Your task to perform on an android device: open app "ColorNote Notepad Notes" (install if not already installed) Image 0: 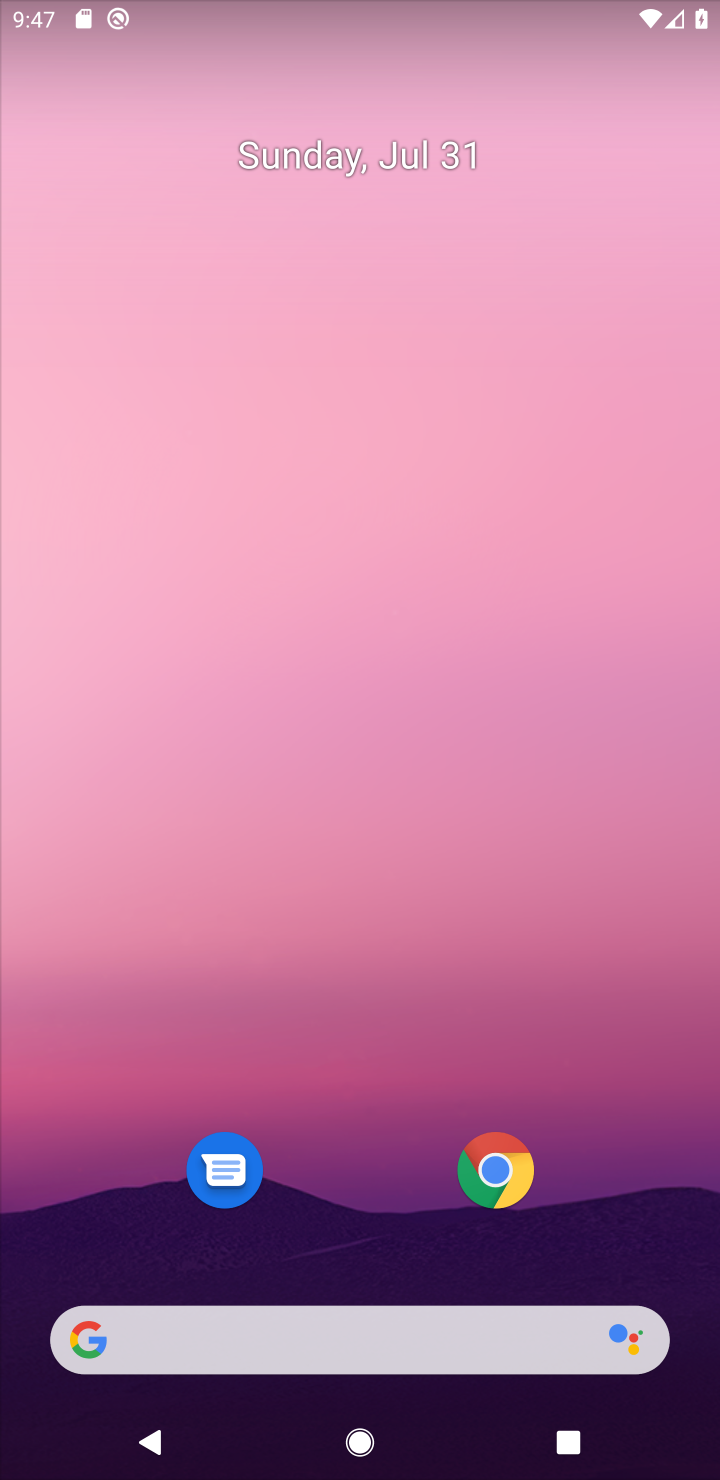
Step 0: drag from (645, 1205) to (382, 84)
Your task to perform on an android device: open app "ColorNote Notepad Notes" (install if not already installed) Image 1: 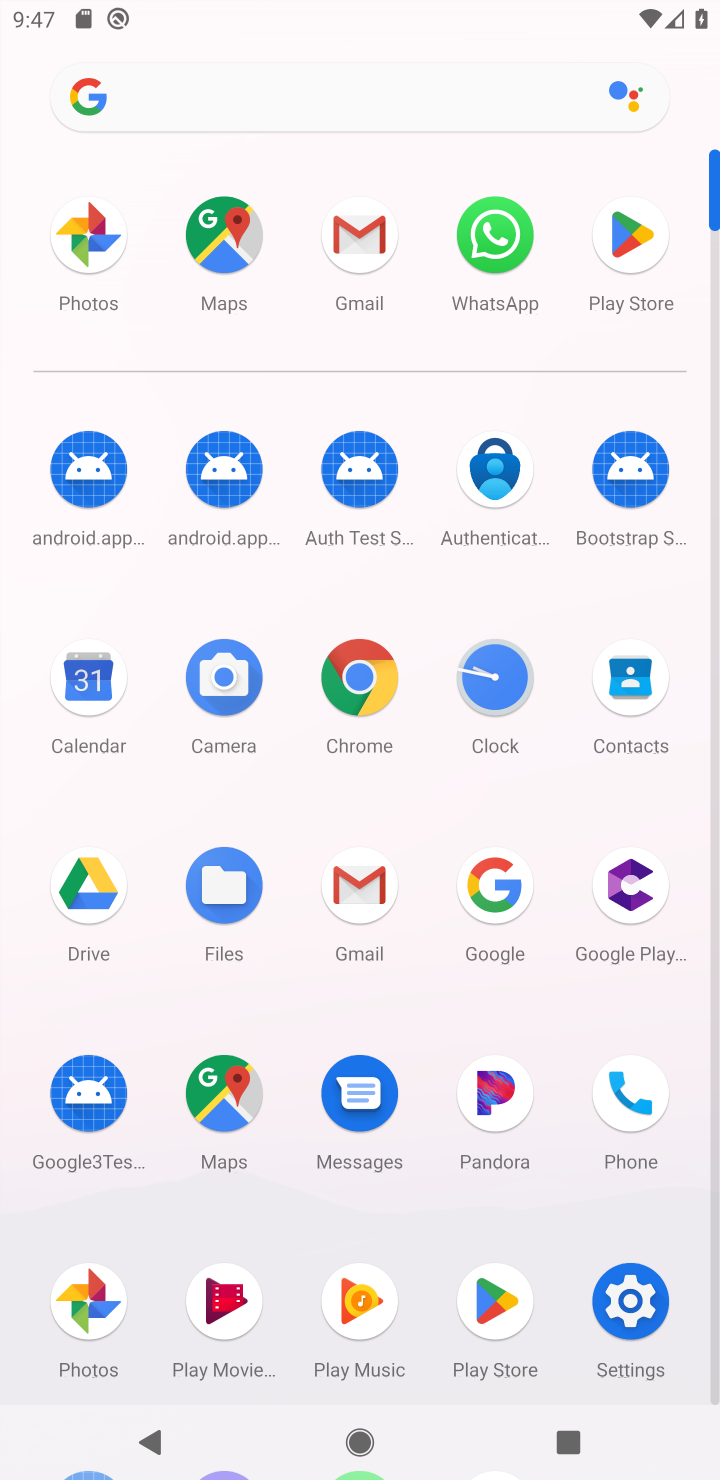
Step 1: click (615, 238)
Your task to perform on an android device: open app "ColorNote Notepad Notes" (install if not already installed) Image 2: 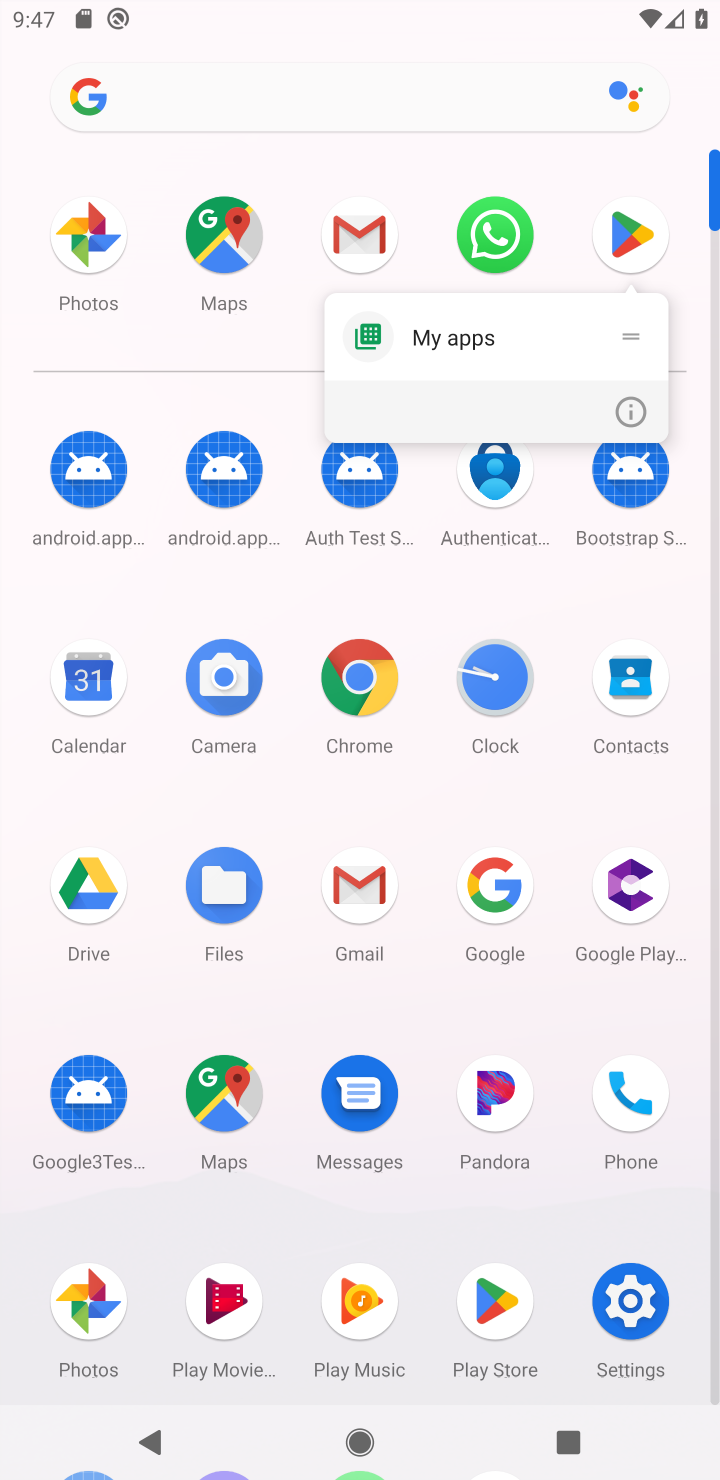
Step 2: click (615, 238)
Your task to perform on an android device: open app "ColorNote Notepad Notes" (install if not already installed) Image 3: 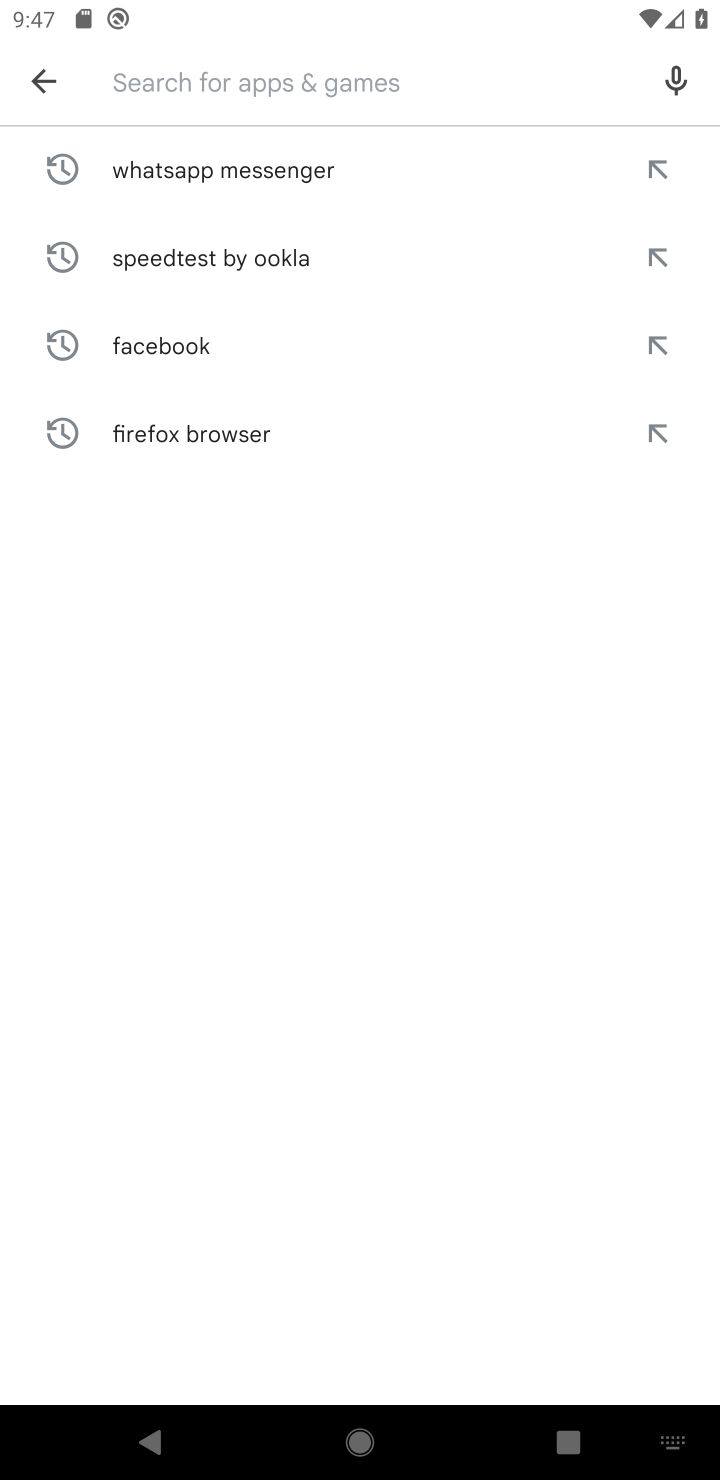
Step 3: type "ColorNote Notepad Notes"
Your task to perform on an android device: open app "ColorNote Notepad Notes" (install if not already installed) Image 4: 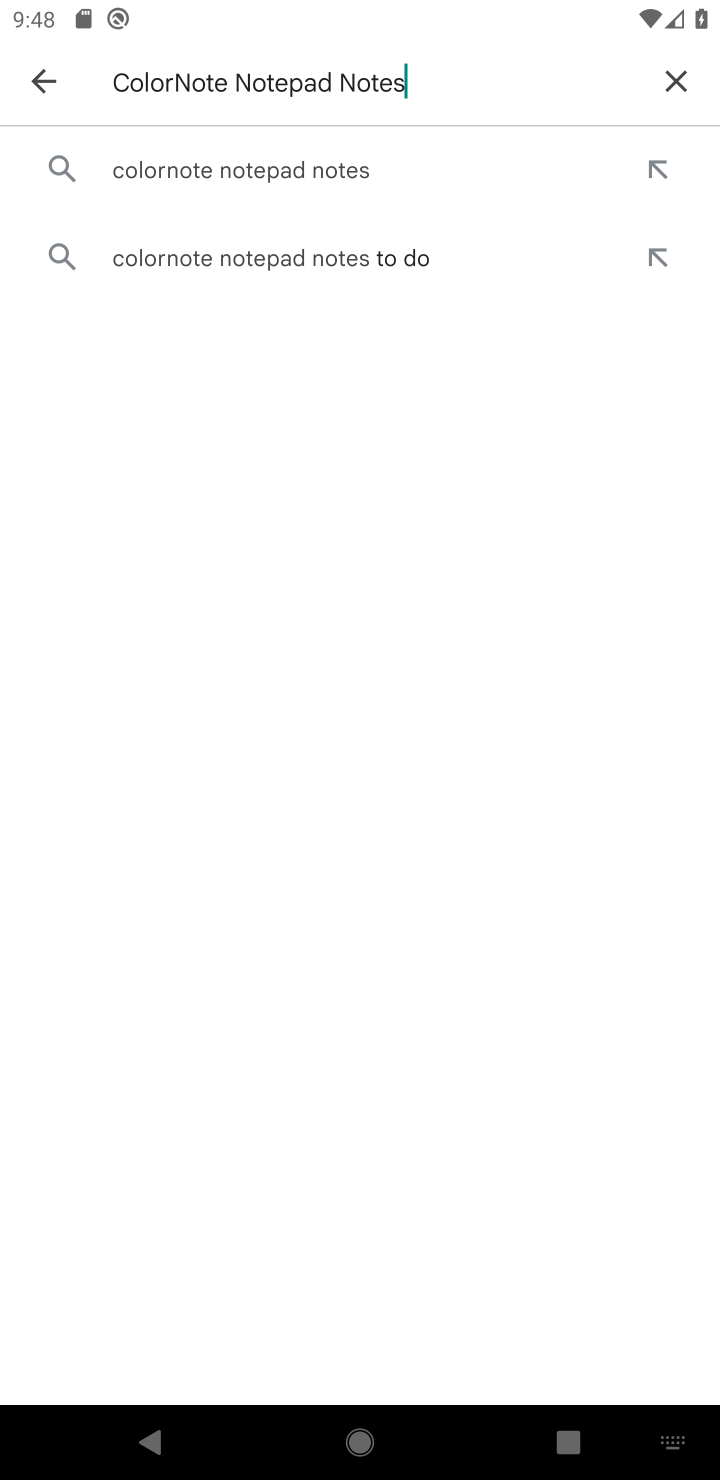
Step 4: click (211, 181)
Your task to perform on an android device: open app "ColorNote Notepad Notes" (install if not already installed) Image 5: 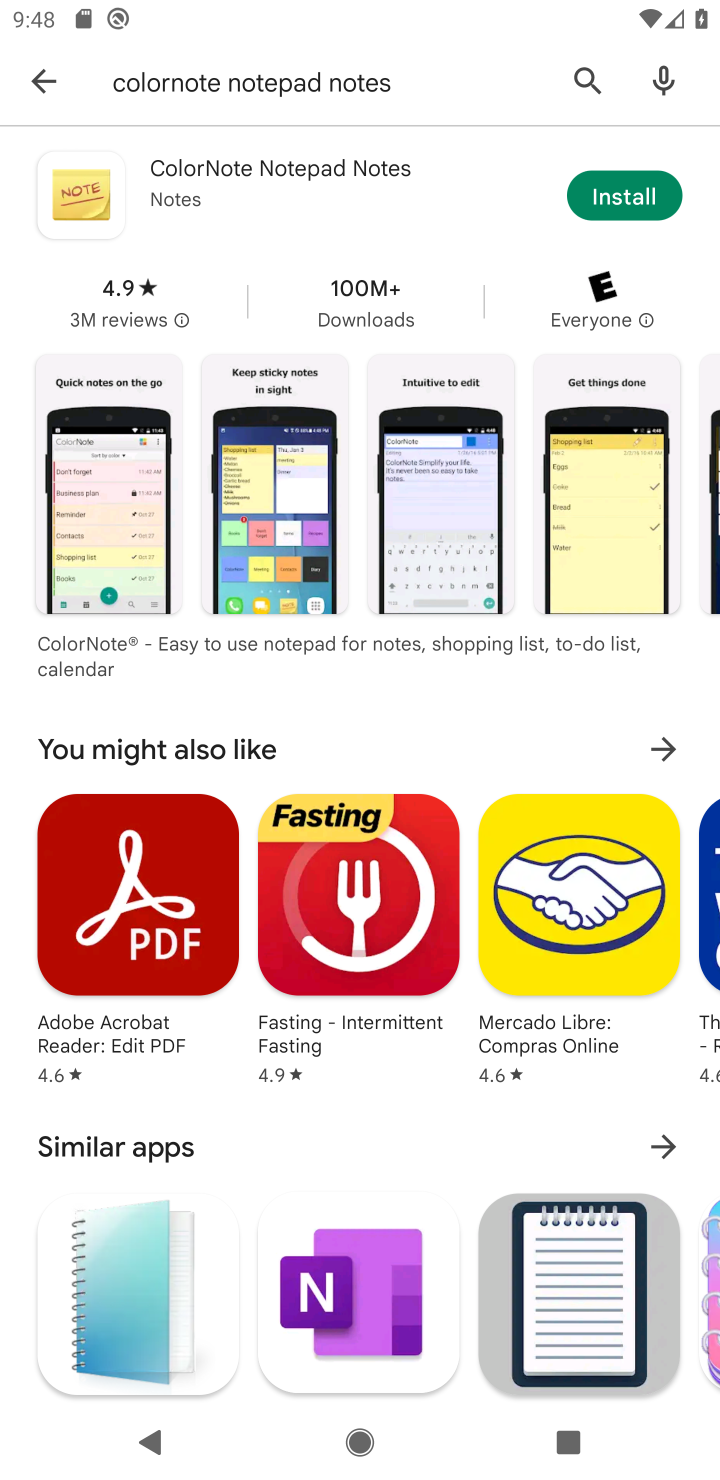
Step 5: task complete